Your task to perform on an android device: refresh tabs in the chrome app Image 0: 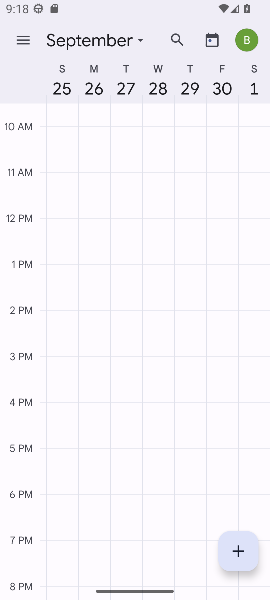
Step 0: press home button
Your task to perform on an android device: refresh tabs in the chrome app Image 1: 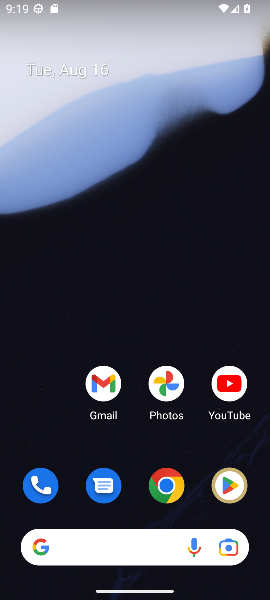
Step 1: click (163, 488)
Your task to perform on an android device: refresh tabs in the chrome app Image 2: 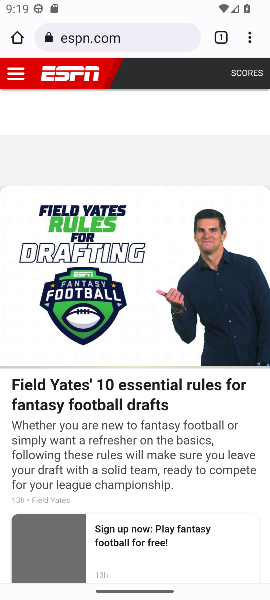
Step 2: click (246, 47)
Your task to perform on an android device: refresh tabs in the chrome app Image 3: 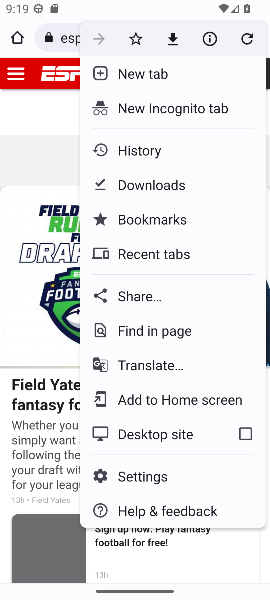
Step 3: click (247, 37)
Your task to perform on an android device: refresh tabs in the chrome app Image 4: 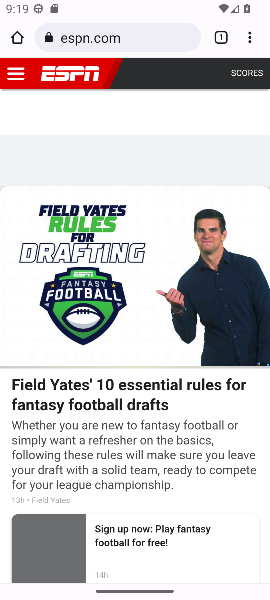
Step 4: task complete